Your task to perform on an android device: turn off priority inbox in the gmail app Image 0: 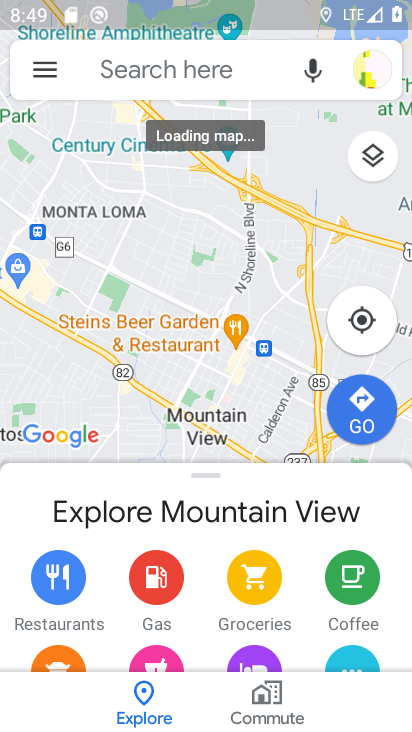
Step 0: press home button
Your task to perform on an android device: turn off priority inbox in the gmail app Image 1: 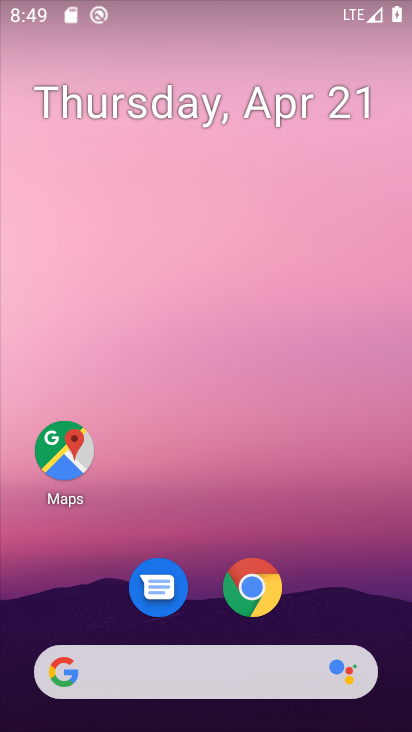
Step 1: drag from (389, 513) to (373, 304)
Your task to perform on an android device: turn off priority inbox in the gmail app Image 2: 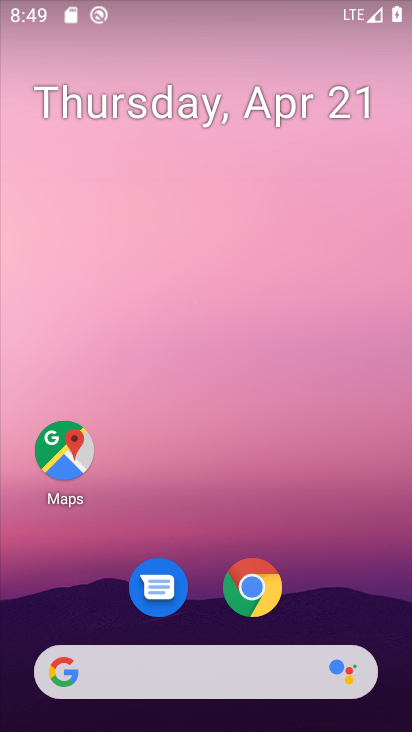
Step 2: drag from (359, 265) to (354, 131)
Your task to perform on an android device: turn off priority inbox in the gmail app Image 3: 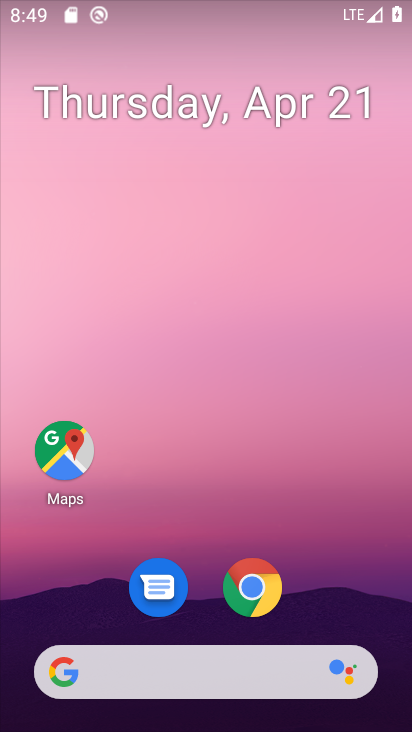
Step 3: drag from (343, 288) to (317, 161)
Your task to perform on an android device: turn off priority inbox in the gmail app Image 4: 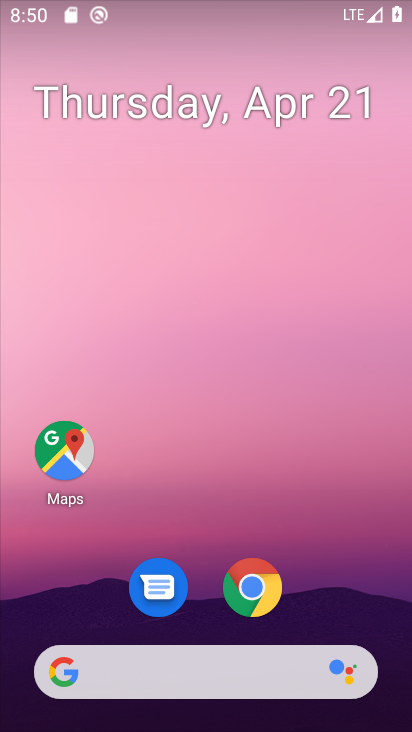
Step 4: drag from (378, 587) to (350, 98)
Your task to perform on an android device: turn off priority inbox in the gmail app Image 5: 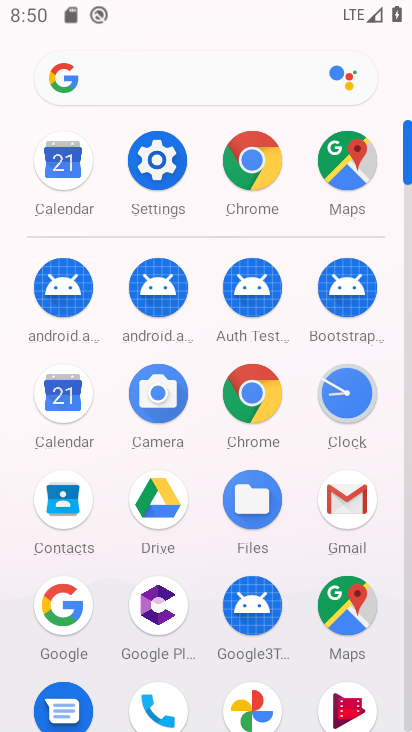
Step 5: click (337, 508)
Your task to perform on an android device: turn off priority inbox in the gmail app Image 6: 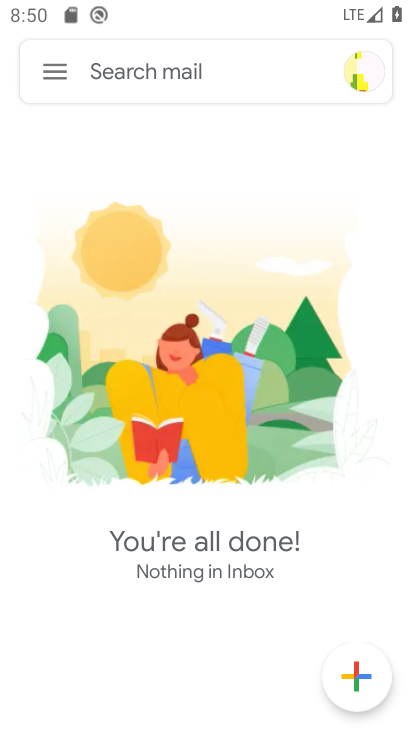
Step 6: click (37, 67)
Your task to perform on an android device: turn off priority inbox in the gmail app Image 7: 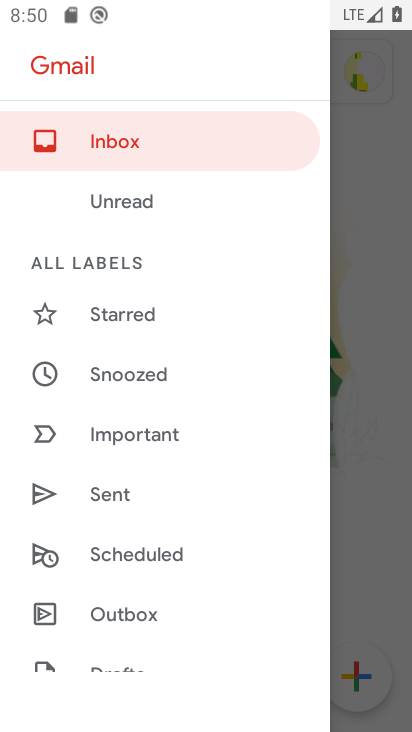
Step 7: drag from (261, 584) to (257, 343)
Your task to perform on an android device: turn off priority inbox in the gmail app Image 8: 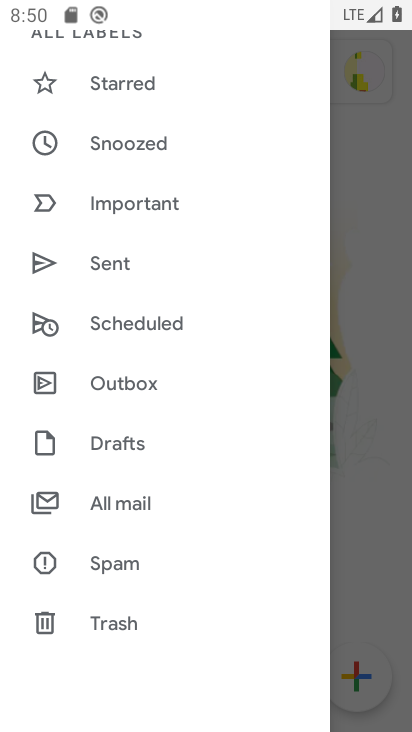
Step 8: drag from (266, 354) to (269, 243)
Your task to perform on an android device: turn off priority inbox in the gmail app Image 9: 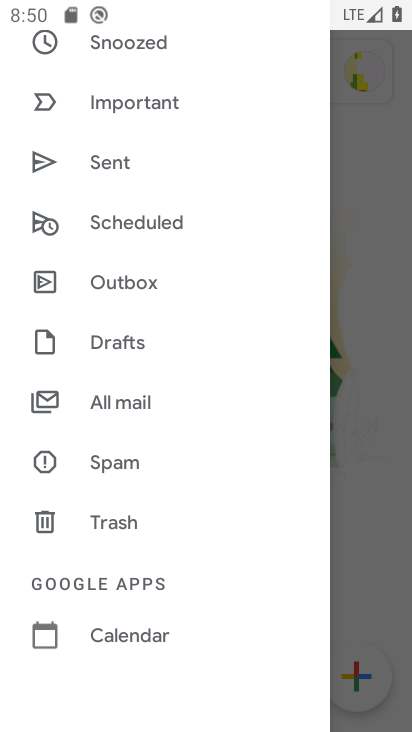
Step 9: drag from (225, 390) to (241, 222)
Your task to perform on an android device: turn off priority inbox in the gmail app Image 10: 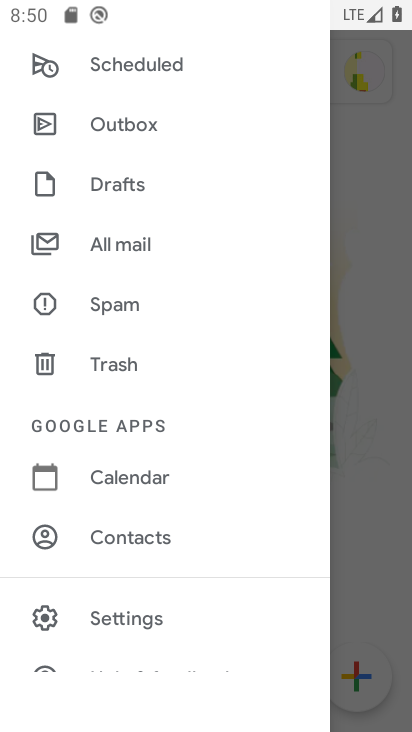
Step 10: drag from (228, 445) to (232, 248)
Your task to perform on an android device: turn off priority inbox in the gmail app Image 11: 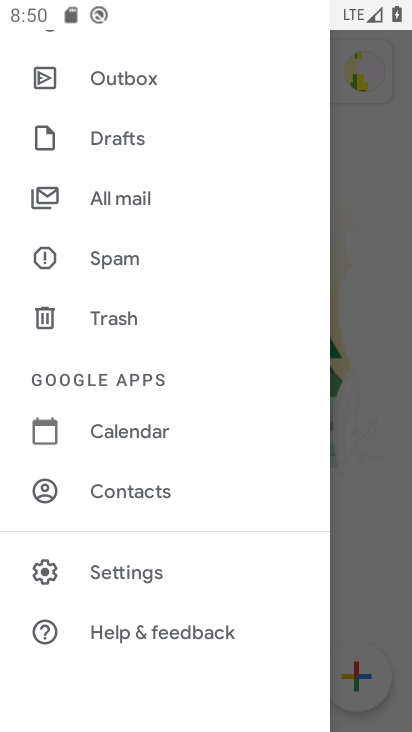
Step 11: click (135, 566)
Your task to perform on an android device: turn off priority inbox in the gmail app Image 12: 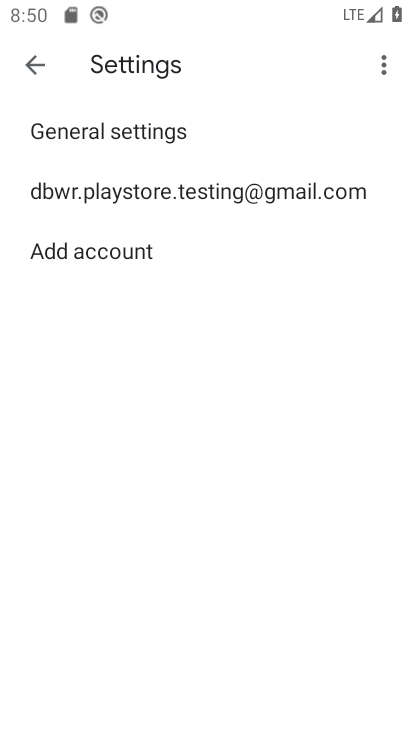
Step 12: click (119, 190)
Your task to perform on an android device: turn off priority inbox in the gmail app Image 13: 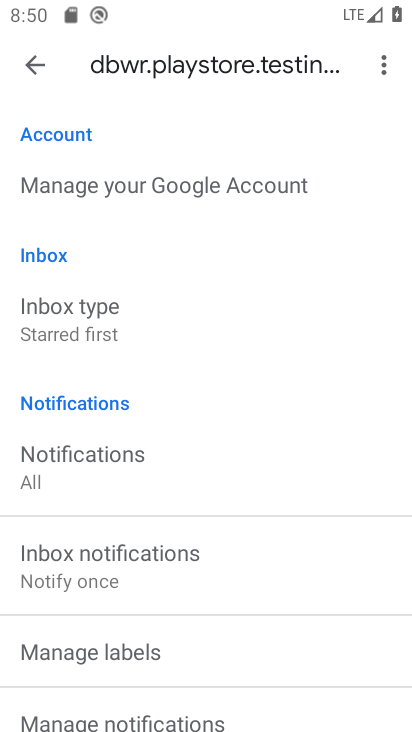
Step 13: click (299, 306)
Your task to perform on an android device: turn off priority inbox in the gmail app Image 14: 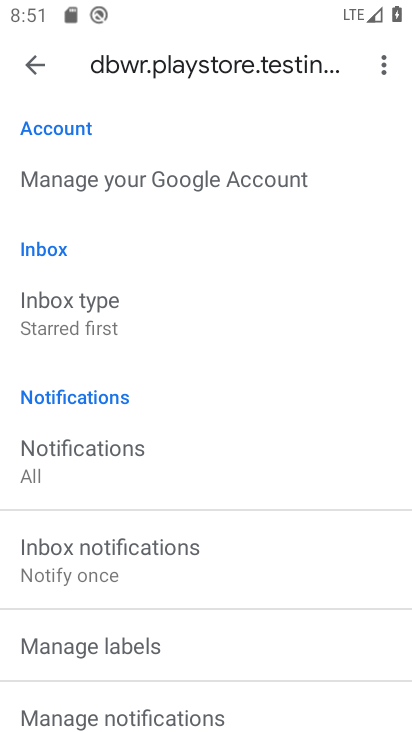
Step 14: click (62, 299)
Your task to perform on an android device: turn off priority inbox in the gmail app Image 15: 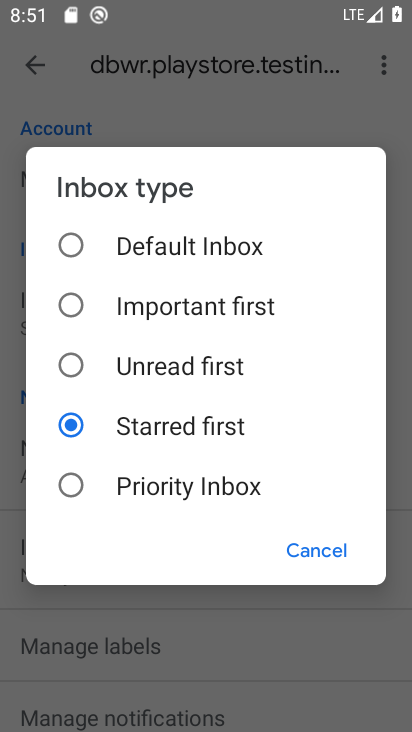
Step 15: task complete